Your task to perform on an android device: Set the phone to "Do not disturb". Image 0: 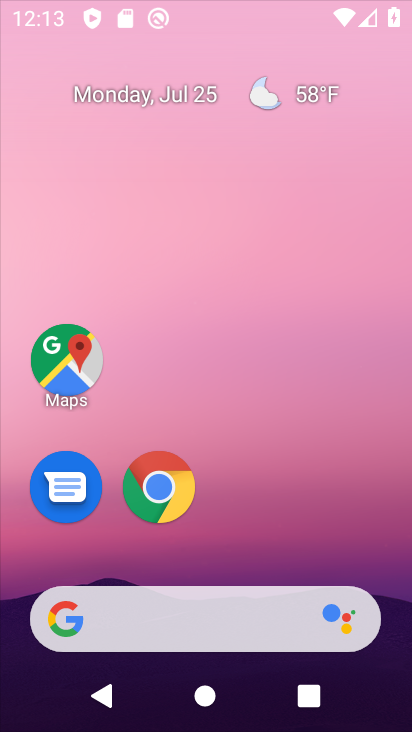
Step 0: drag from (246, 19) to (228, 588)
Your task to perform on an android device: Set the phone to "Do not disturb". Image 1: 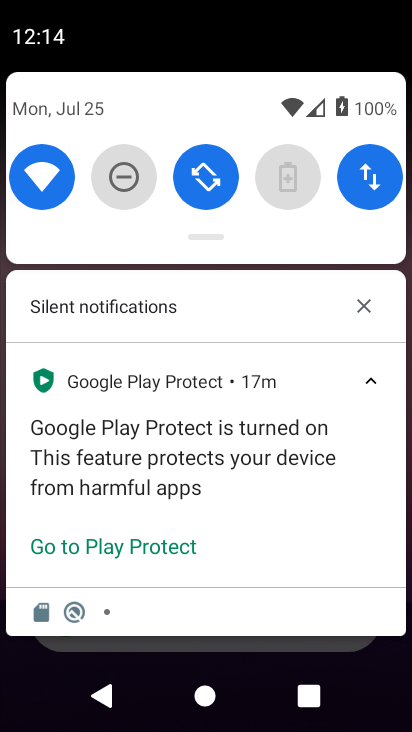
Step 1: click (121, 168)
Your task to perform on an android device: Set the phone to "Do not disturb". Image 2: 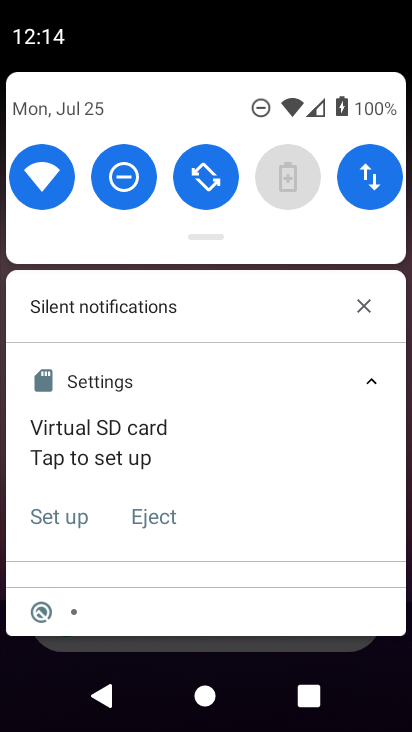
Step 2: task complete